Your task to perform on an android device: Go to sound settings Image 0: 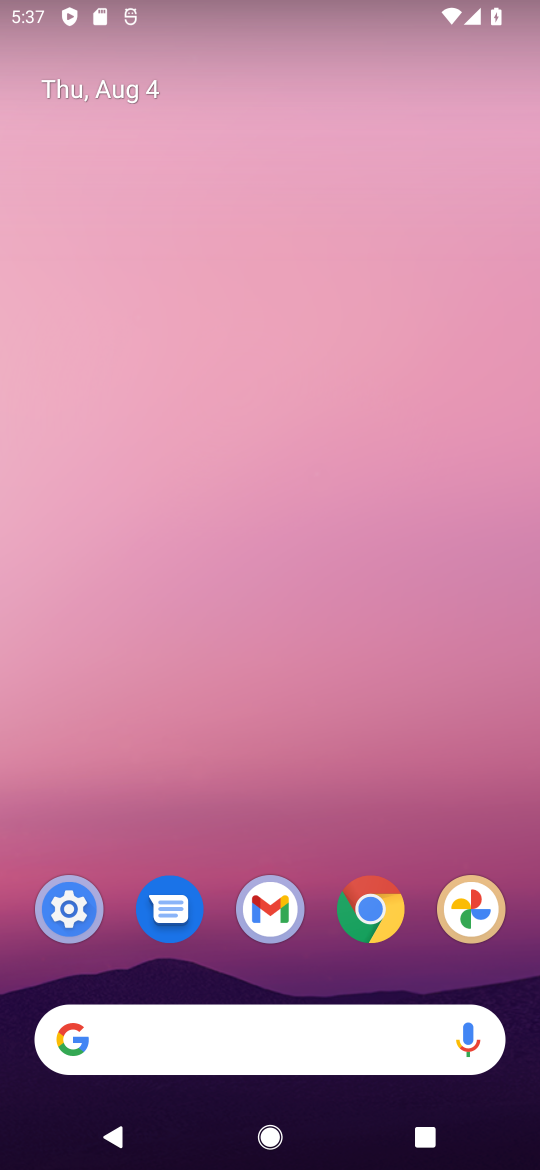
Step 0: drag from (322, 984) to (436, 1)
Your task to perform on an android device: Go to sound settings Image 1: 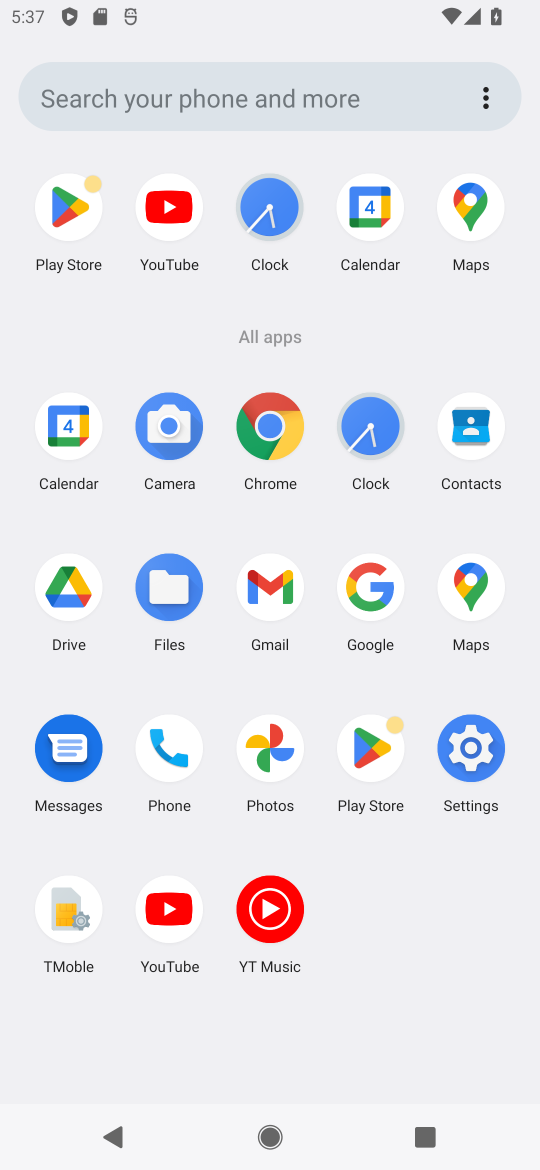
Step 1: click (472, 766)
Your task to perform on an android device: Go to sound settings Image 2: 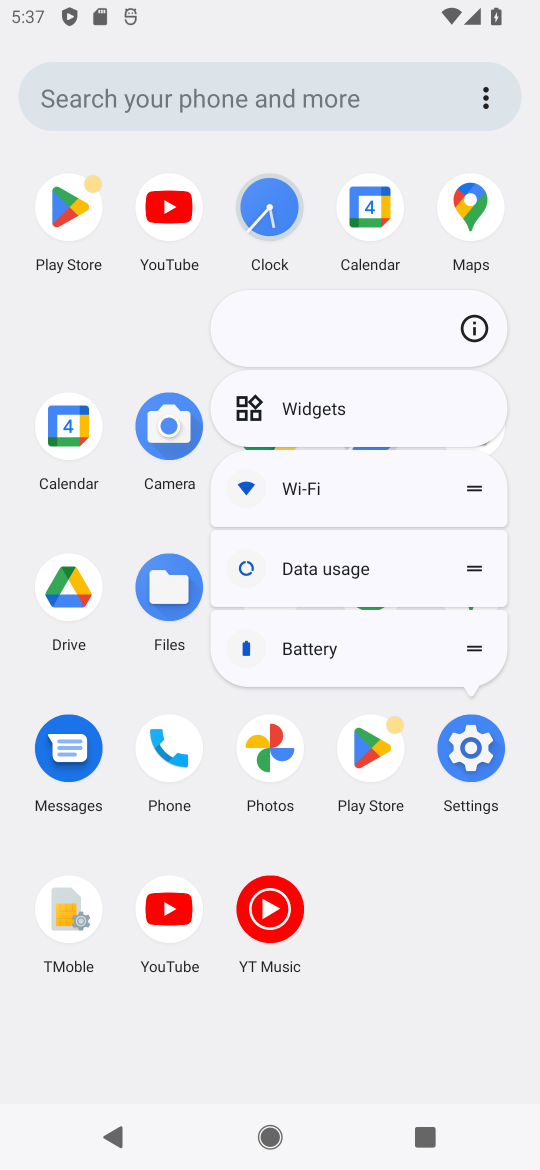
Step 2: click (473, 739)
Your task to perform on an android device: Go to sound settings Image 3: 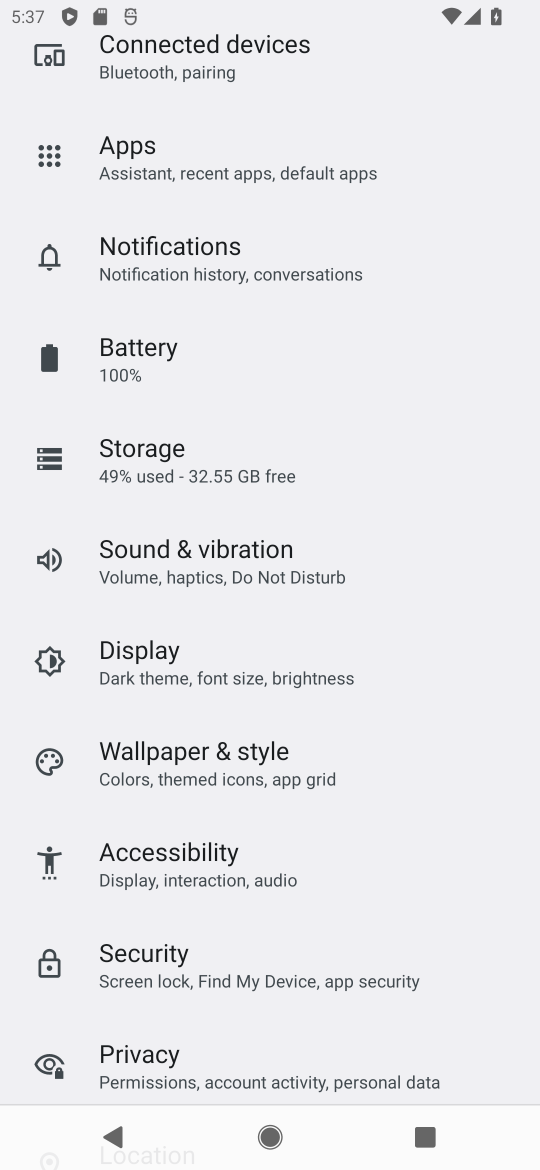
Step 3: drag from (222, 404) to (158, 1121)
Your task to perform on an android device: Go to sound settings Image 4: 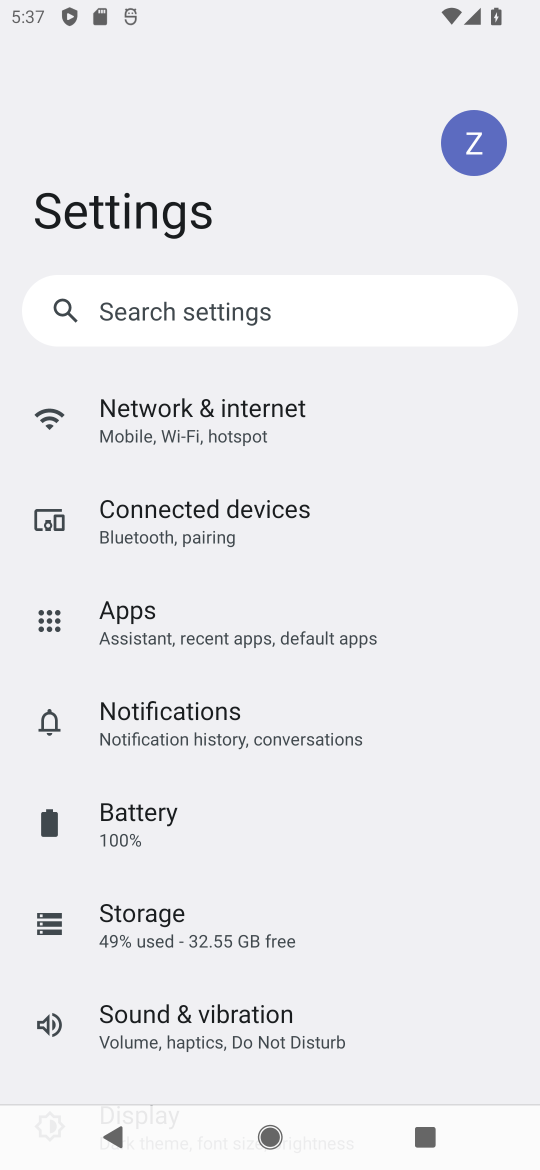
Step 4: drag from (201, 969) to (242, 249)
Your task to perform on an android device: Go to sound settings Image 5: 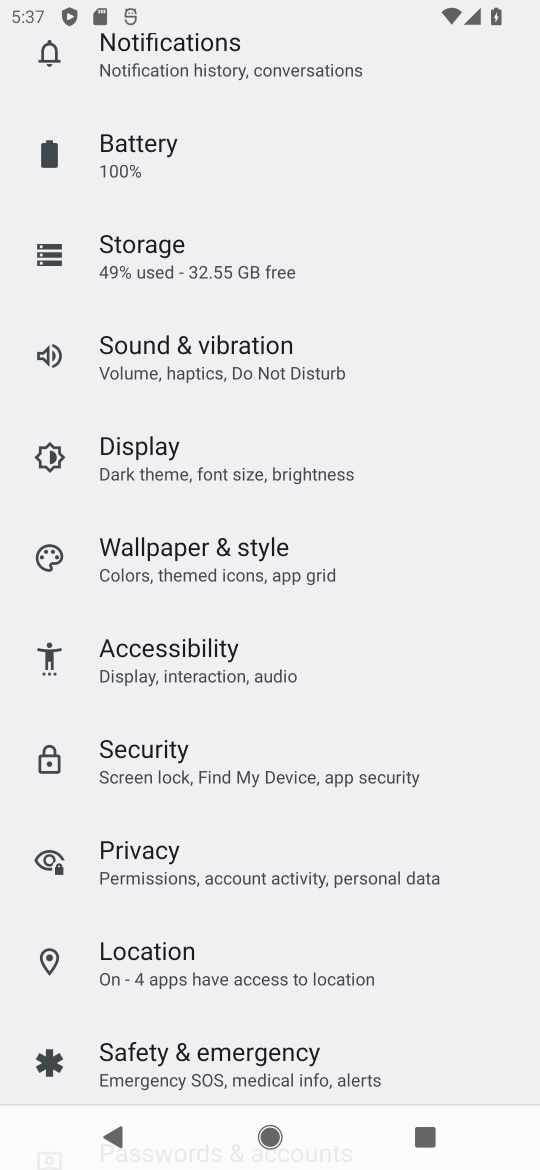
Step 5: drag from (225, 865) to (267, 213)
Your task to perform on an android device: Go to sound settings Image 6: 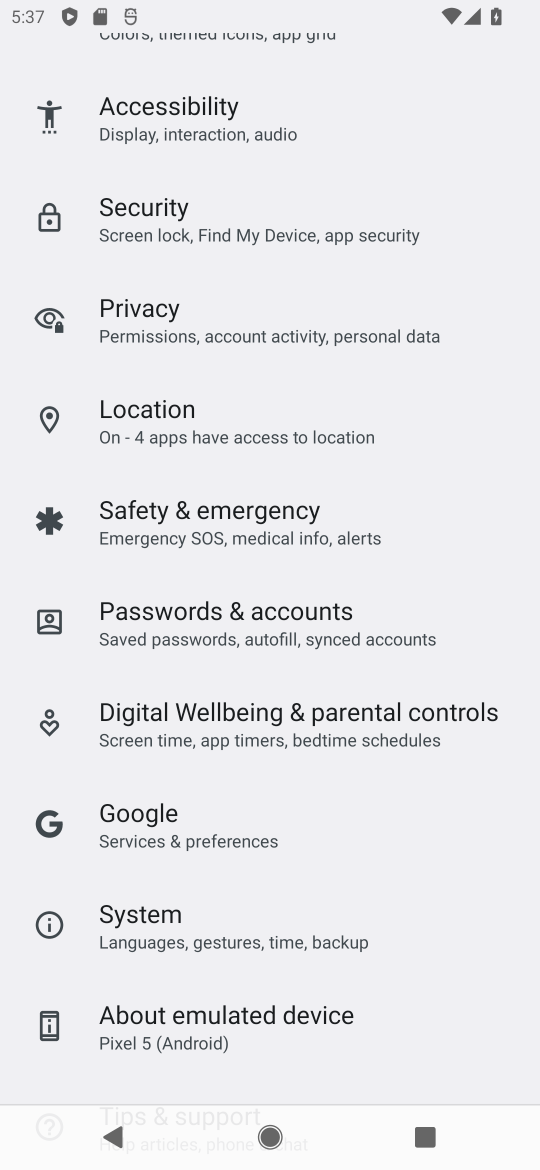
Step 6: drag from (163, 843) to (25, 105)
Your task to perform on an android device: Go to sound settings Image 7: 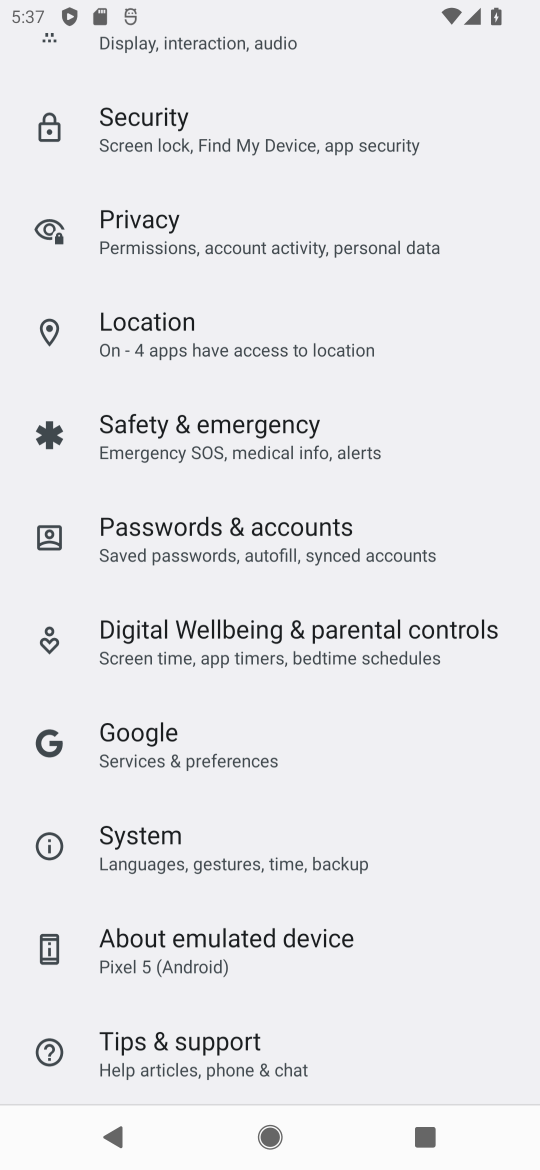
Step 7: drag from (240, 164) to (239, 934)
Your task to perform on an android device: Go to sound settings Image 8: 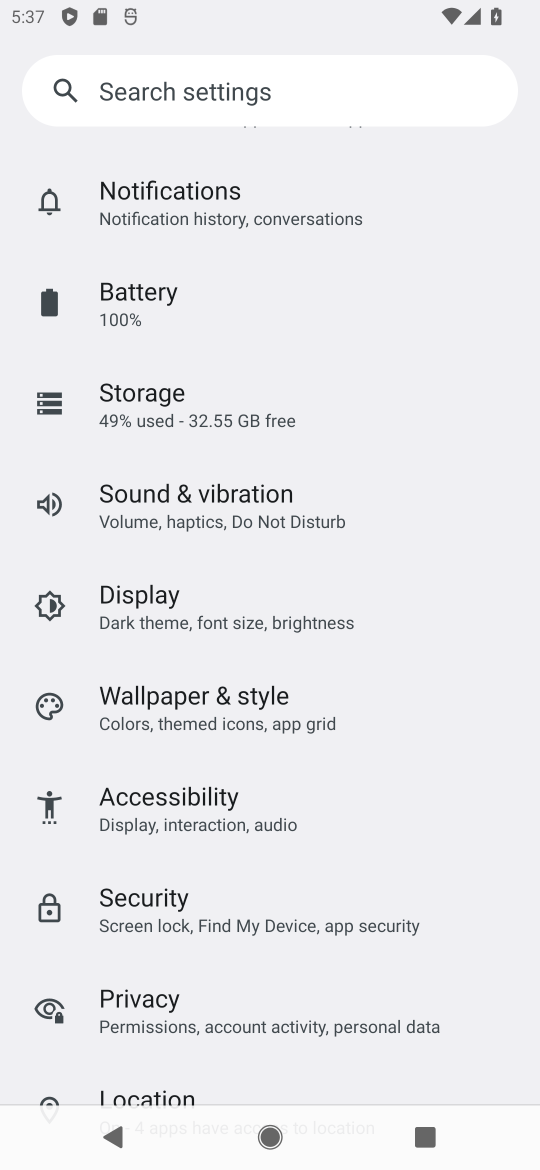
Step 8: click (223, 519)
Your task to perform on an android device: Go to sound settings Image 9: 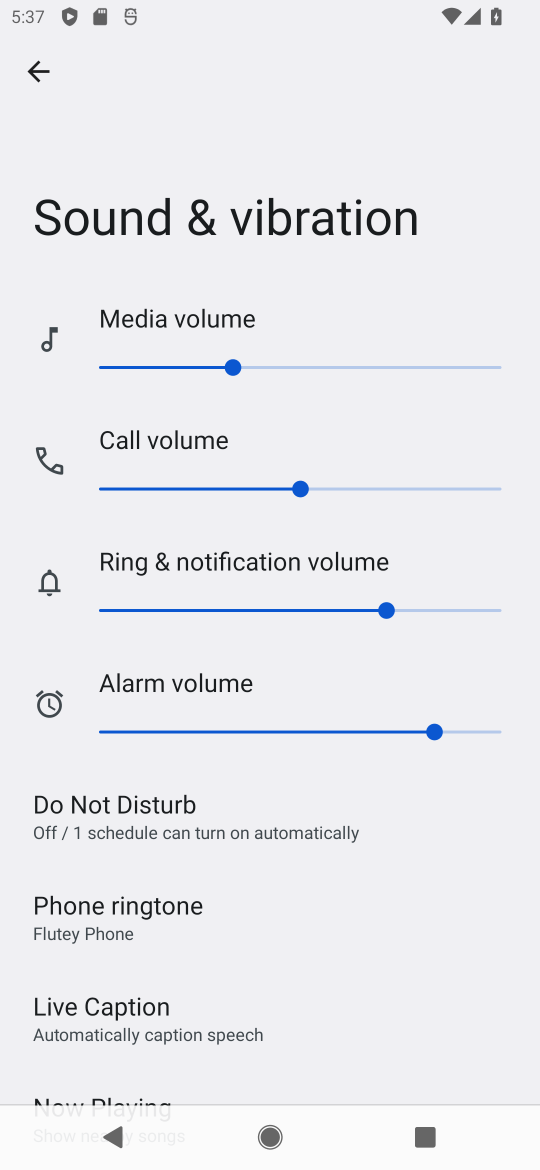
Step 9: task complete